Your task to perform on an android device: open app "Etsy: Buy & Sell Unique Items" Image 0: 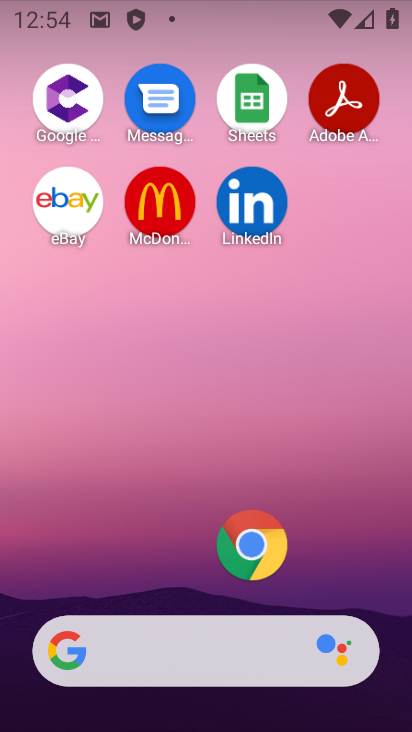
Step 0: drag from (138, 475) to (227, 11)
Your task to perform on an android device: open app "Etsy: Buy & Sell Unique Items" Image 1: 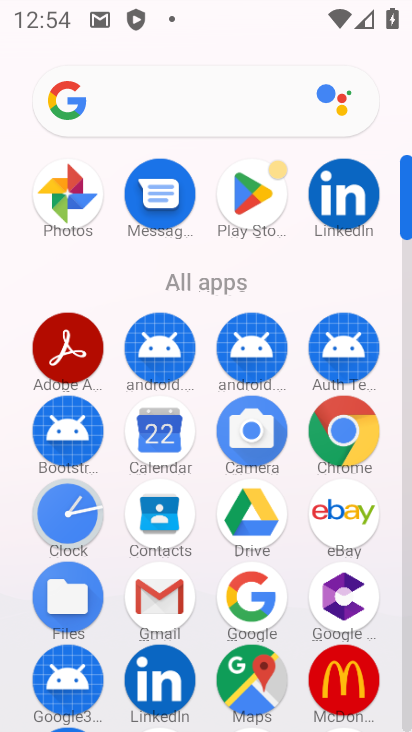
Step 1: click (252, 207)
Your task to perform on an android device: open app "Etsy: Buy & Sell Unique Items" Image 2: 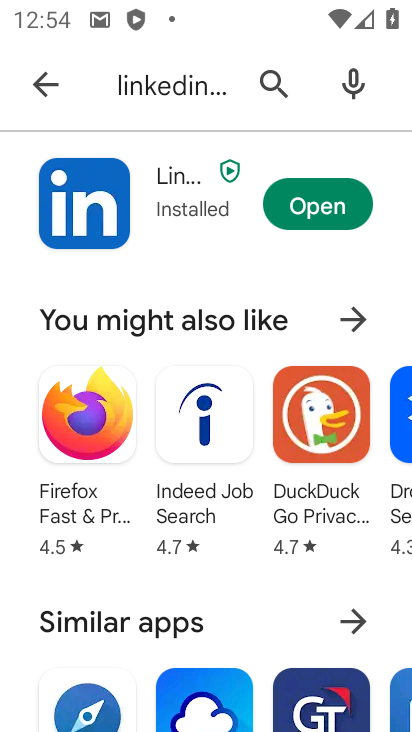
Step 2: click (275, 74)
Your task to perform on an android device: open app "Etsy: Buy & Sell Unique Items" Image 3: 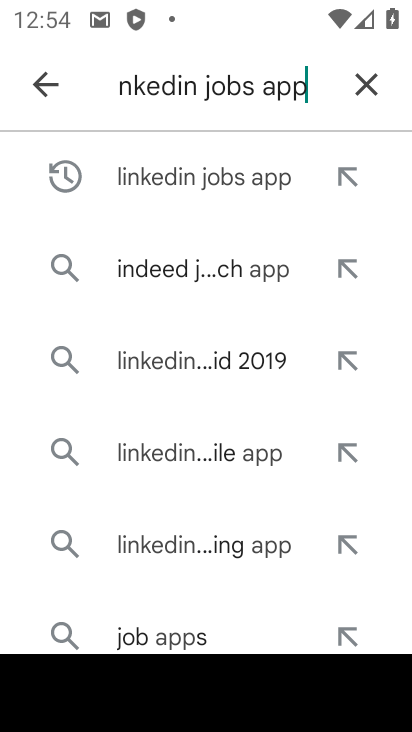
Step 3: click (356, 76)
Your task to perform on an android device: open app "Etsy: Buy & Sell Unique Items" Image 4: 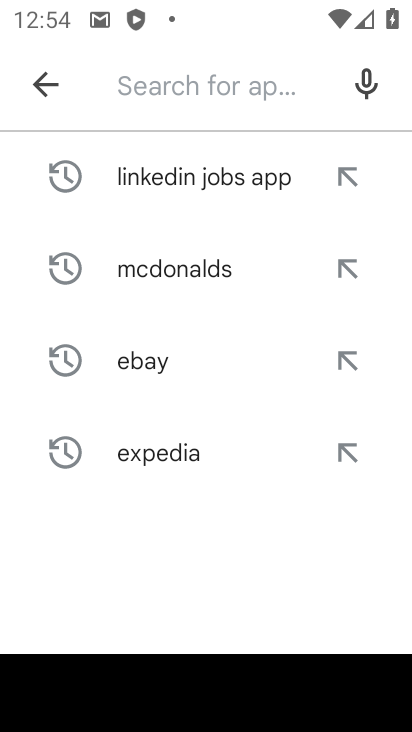
Step 4: click (186, 83)
Your task to perform on an android device: open app "Etsy: Buy & Sell Unique Items" Image 5: 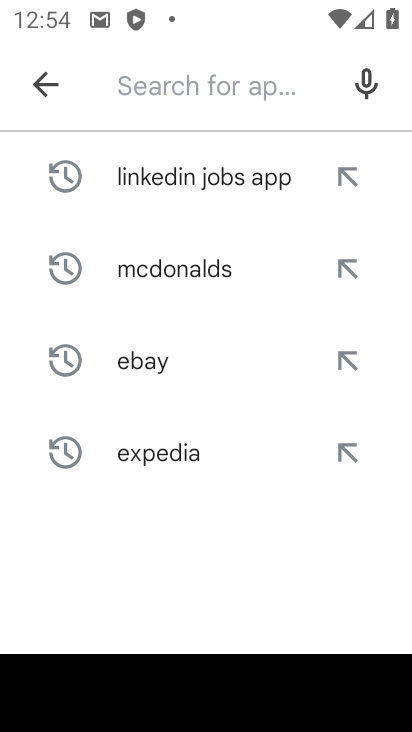
Step 5: type "etsy"
Your task to perform on an android device: open app "Etsy: Buy & Sell Unique Items" Image 6: 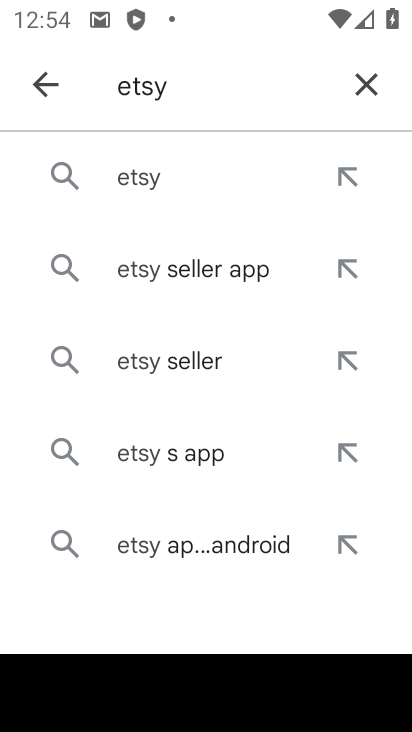
Step 6: click (171, 165)
Your task to perform on an android device: open app "Etsy: Buy & Sell Unique Items" Image 7: 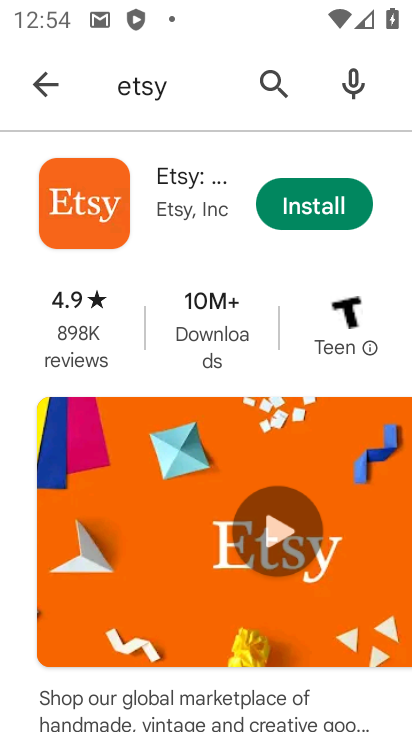
Step 7: task complete